Your task to perform on an android device: Show me popular games on the Play Store Image 0: 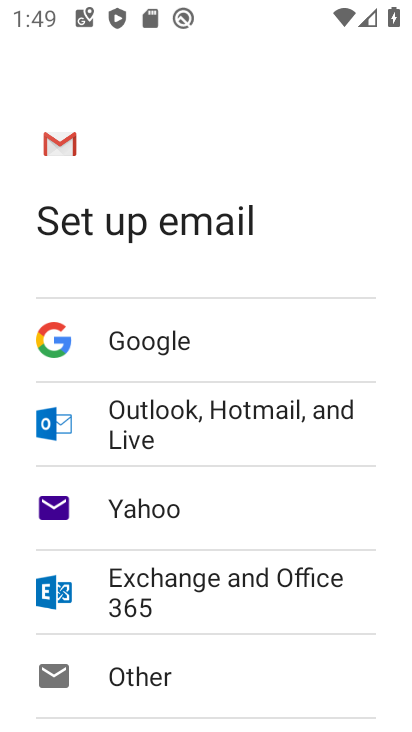
Step 0: press home button
Your task to perform on an android device: Show me popular games on the Play Store Image 1: 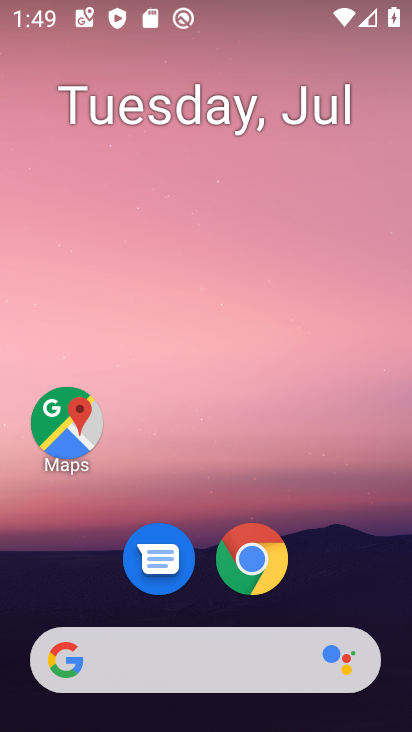
Step 1: drag from (349, 581) to (357, 129)
Your task to perform on an android device: Show me popular games on the Play Store Image 2: 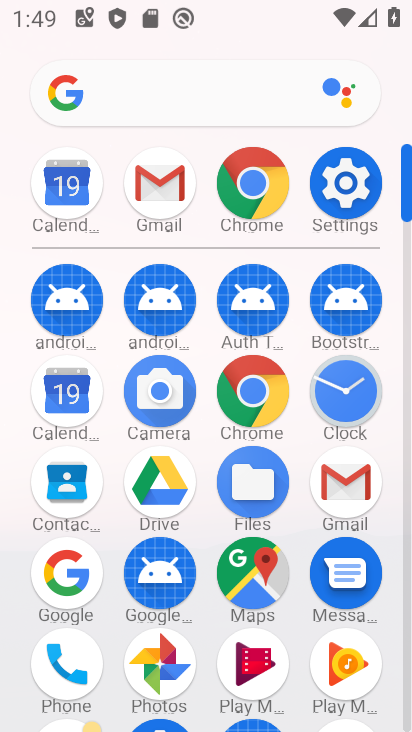
Step 2: drag from (389, 638) to (388, 436)
Your task to perform on an android device: Show me popular games on the Play Store Image 3: 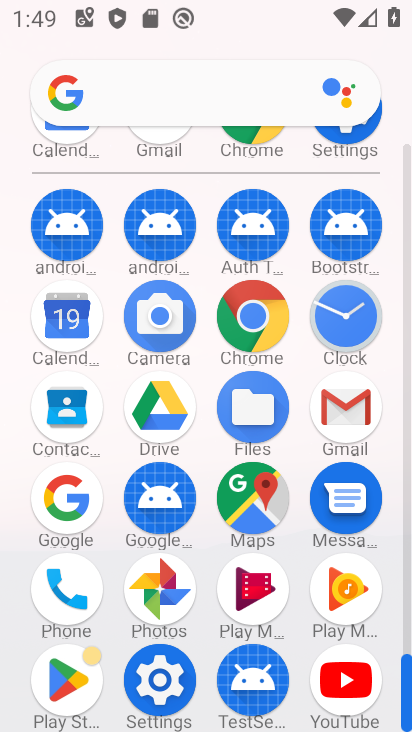
Step 3: click (67, 683)
Your task to perform on an android device: Show me popular games on the Play Store Image 4: 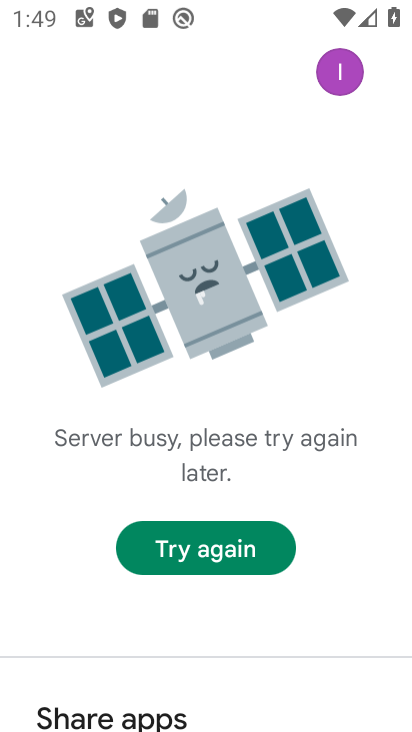
Step 4: task complete